Your task to perform on an android device: Toggle the flashlight Image 0: 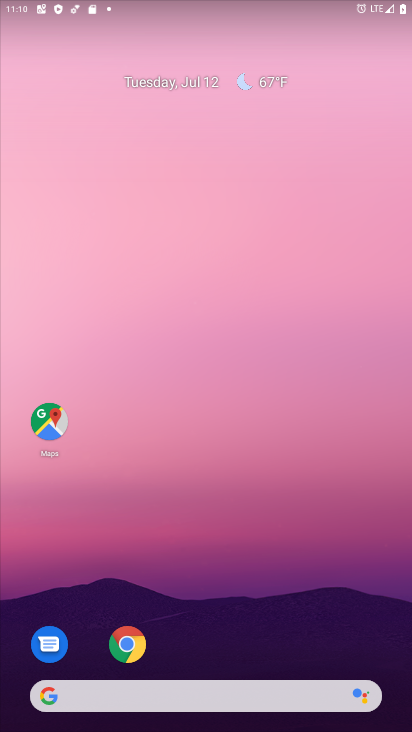
Step 0: drag from (204, 605) to (258, 102)
Your task to perform on an android device: Toggle the flashlight Image 1: 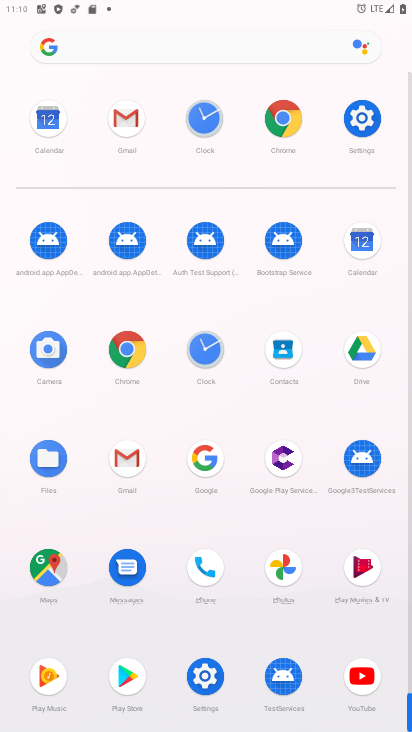
Step 1: click (348, 119)
Your task to perform on an android device: Toggle the flashlight Image 2: 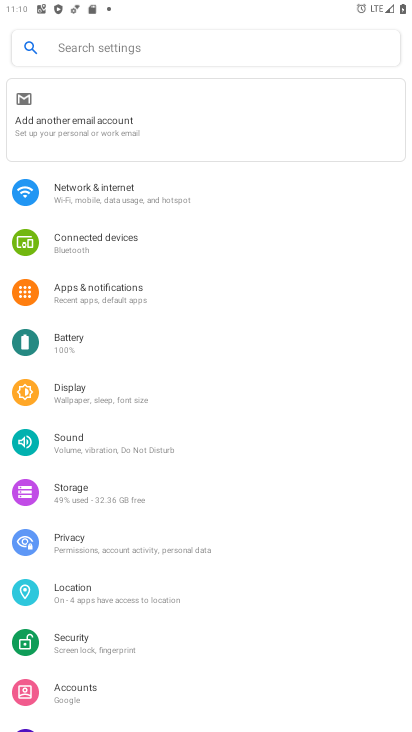
Step 2: click (108, 44)
Your task to perform on an android device: Toggle the flashlight Image 3: 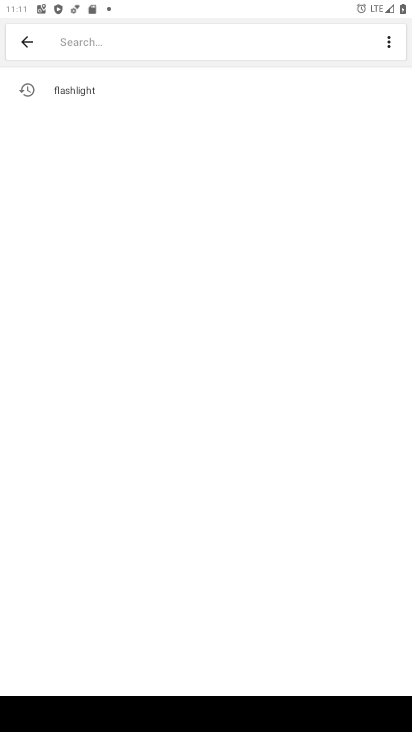
Step 3: click (128, 96)
Your task to perform on an android device: Toggle the flashlight Image 4: 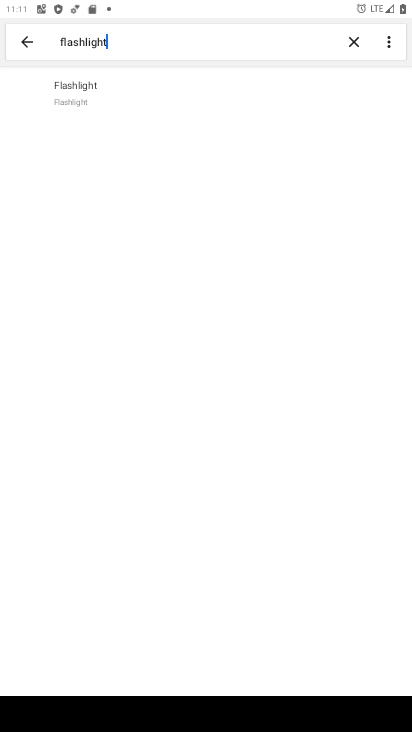
Step 4: task complete